Your task to perform on an android device: Open Wikipedia Image 0: 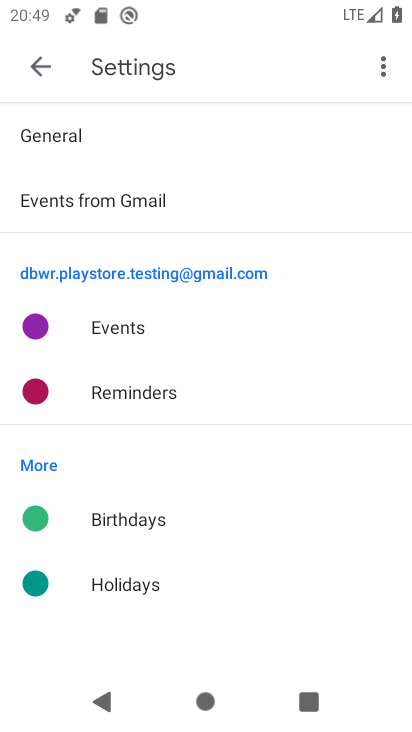
Step 0: press home button
Your task to perform on an android device: Open Wikipedia Image 1: 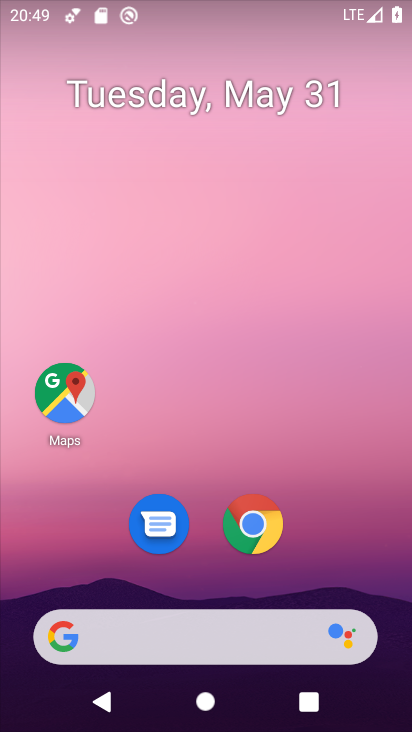
Step 1: click (260, 533)
Your task to perform on an android device: Open Wikipedia Image 2: 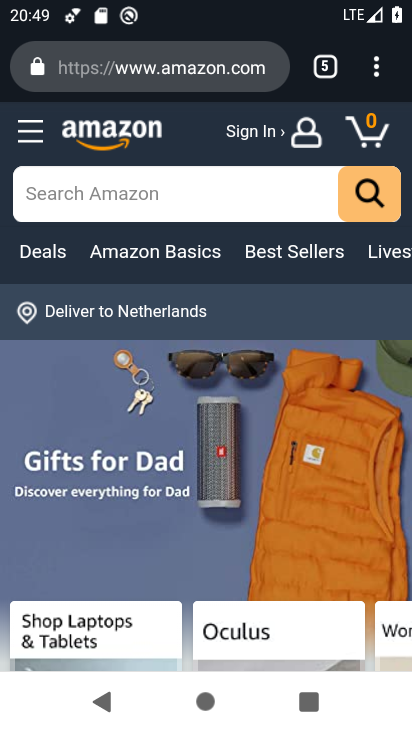
Step 2: click (373, 69)
Your task to perform on an android device: Open Wikipedia Image 3: 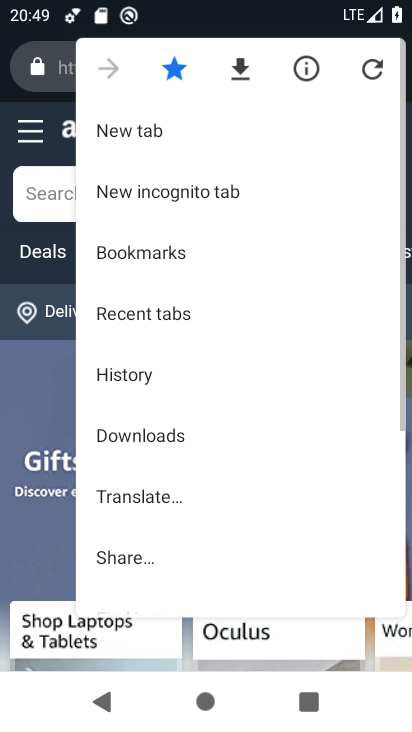
Step 3: click (293, 136)
Your task to perform on an android device: Open Wikipedia Image 4: 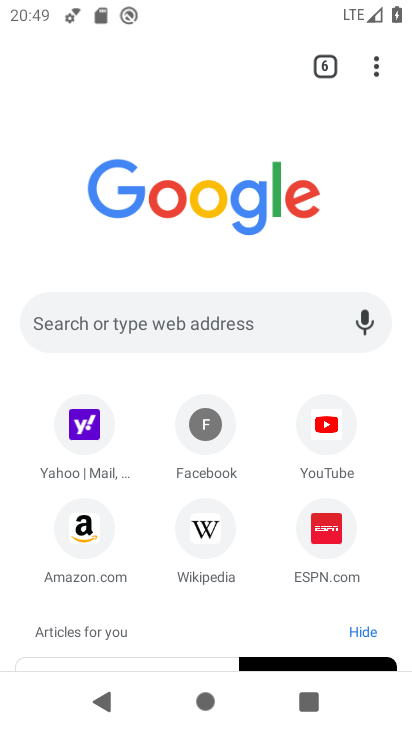
Step 4: click (204, 523)
Your task to perform on an android device: Open Wikipedia Image 5: 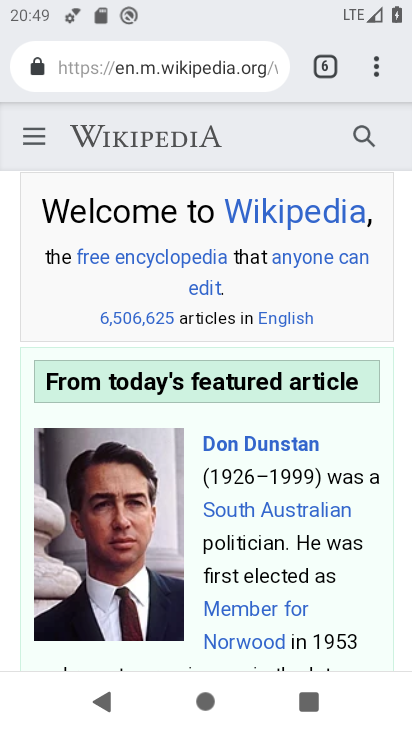
Step 5: task complete